Your task to perform on an android device: Add panasonic triple a to the cart on walmart Image 0: 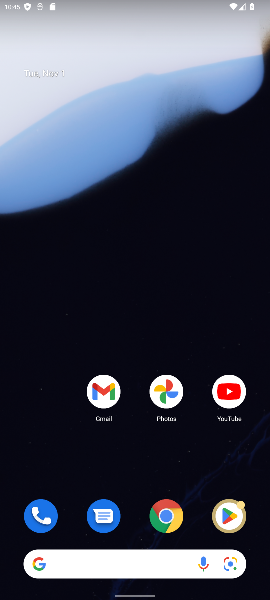
Step 0: click (160, 515)
Your task to perform on an android device: Add panasonic triple a to the cart on walmart Image 1: 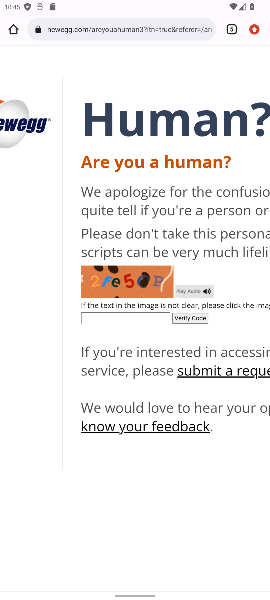
Step 1: click (228, 28)
Your task to perform on an android device: Add panasonic triple a to the cart on walmart Image 2: 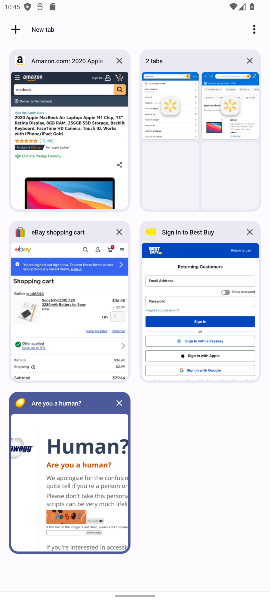
Step 2: click (163, 94)
Your task to perform on an android device: Add panasonic triple a to the cart on walmart Image 3: 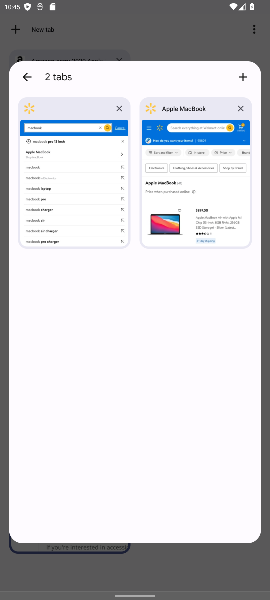
Step 3: click (119, 106)
Your task to perform on an android device: Add panasonic triple a to the cart on walmart Image 4: 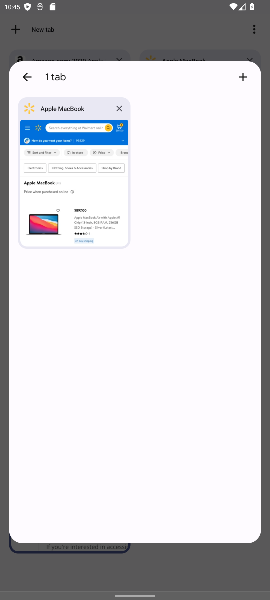
Step 4: click (91, 144)
Your task to perform on an android device: Add panasonic triple a to the cart on walmart Image 5: 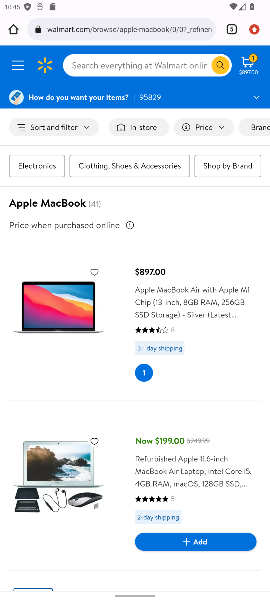
Step 5: click (142, 66)
Your task to perform on an android device: Add panasonic triple a to the cart on walmart Image 6: 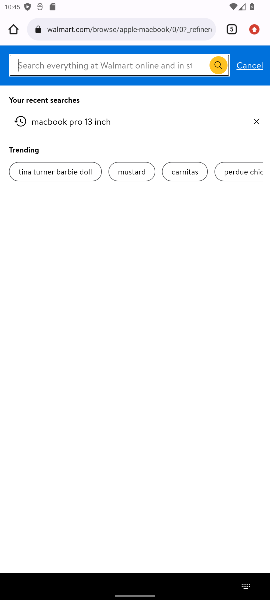
Step 6: type "panasonic triple battery"
Your task to perform on an android device: Add panasonic triple a to the cart on walmart Image 7: 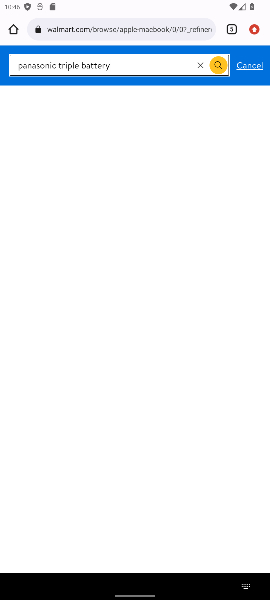
Step 7: click (219, 66)
Your task to perform on an android device: Add panasonic triple a to the cart on walmart Image 8: 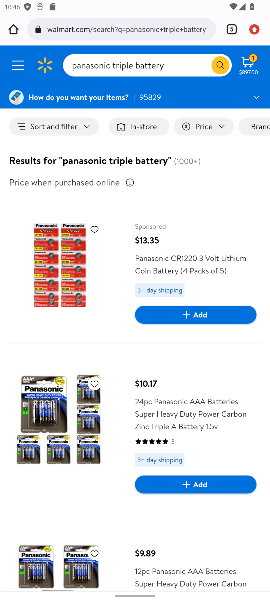
Step 8: click (210, 315)
Your task to perform on an android device: Add panasonic triple a to the cart on walmart Image 9: 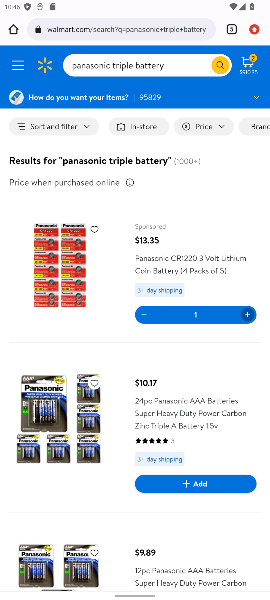
Step 9: task complete